Your task to perform on an android device: Go to wifi settings Image 0: 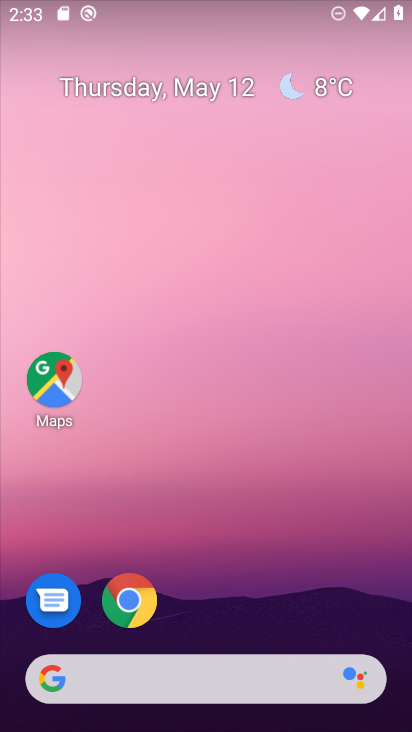
Step 0: drag from (211, 723) to (214, 347)
Your task to perform on an android device: Go to wifi settings Image 1: 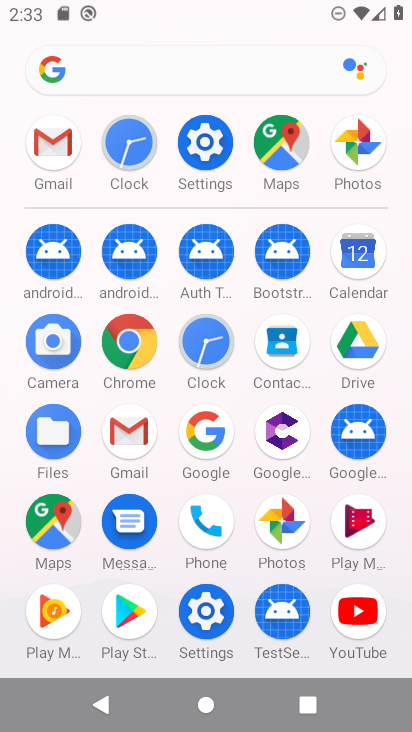
Step 1: click (202, 125)
Your task to perform on an android device: Go to wifi settings Image 2: 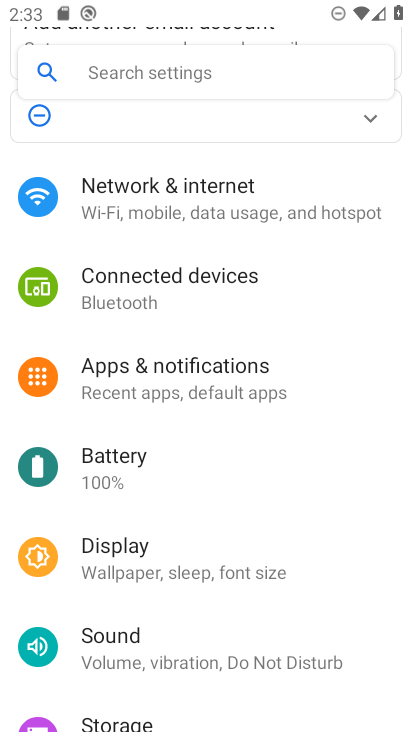
Step 2: click (176, 200)
Your task to perform on an android device: Go to wifi settings Image 3: 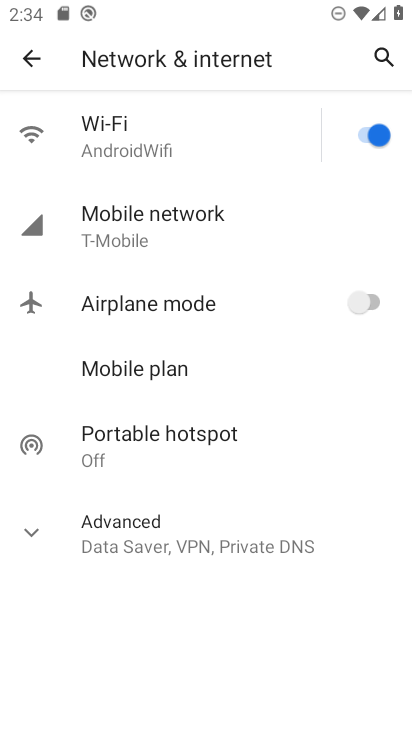
Step 3: click (122, 135)
Your task to perform on an android device: Go to wifi settings Image 4: 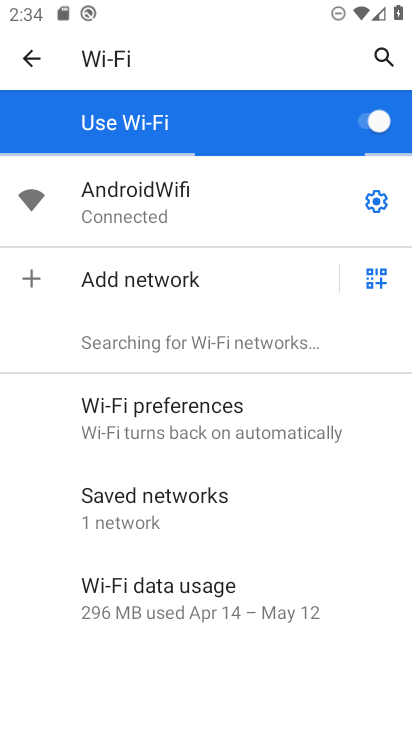
Step 4: task complete